Your task to perform on an android device: Go to display settings Image 0: 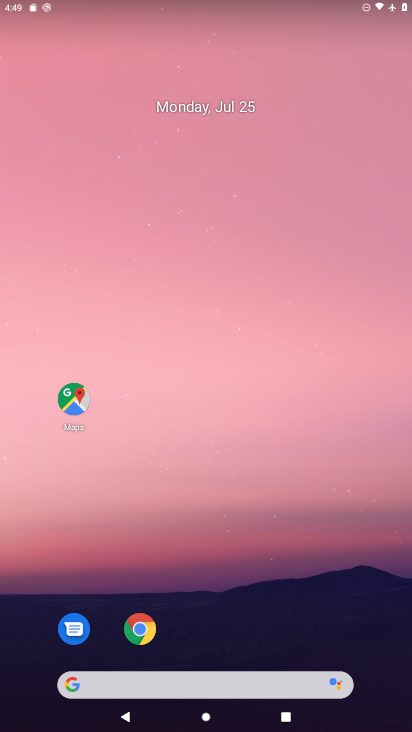
Step 0: drag from (207, 694) to (154, 90)
Your task to perform on an android device: Go to display settings Image 1: 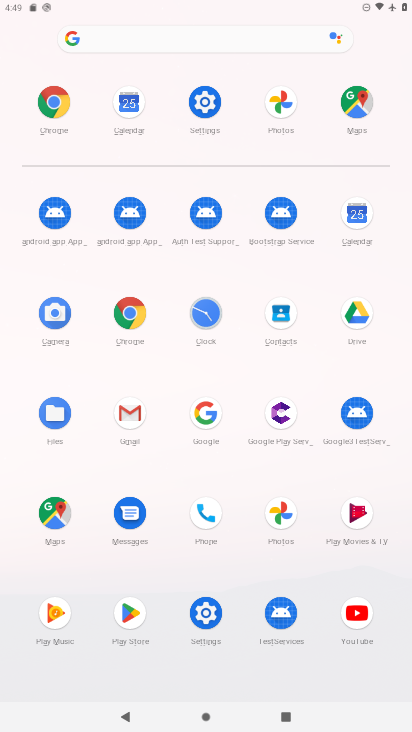
Step 1: click (210, 104)
Your task to perform on an android device: Go to display settings Image 2: 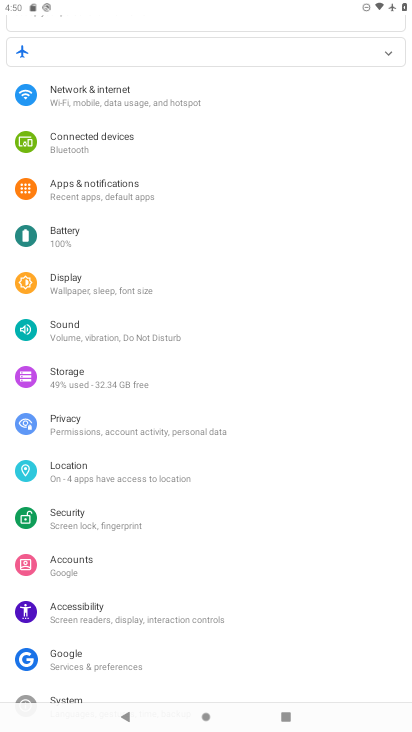
Step 2: click (89, 292)
Your task to perform on an android device: Go to display settings Image 3: 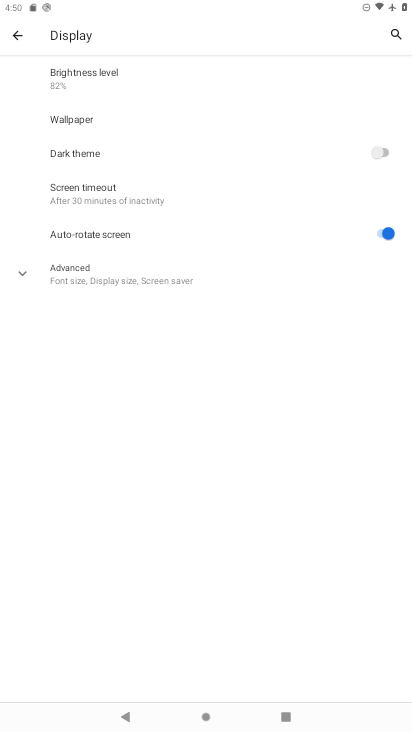
Step 3: task complete